Your task to perform on an android device: change text size in settings app Image 0: 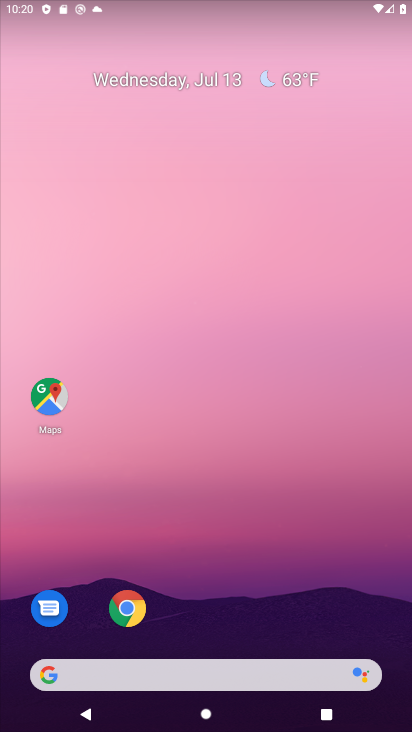
Step 0: drag from (224, 673) to (340, 63)
Your task to perform on an android device: change text size in settings app Image 1: 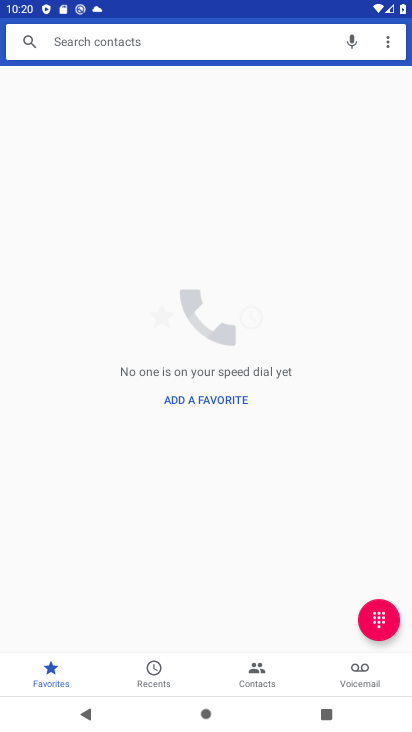
Step 1: press home button
Your task to perform on an android device: change text size in settings app Image 2: 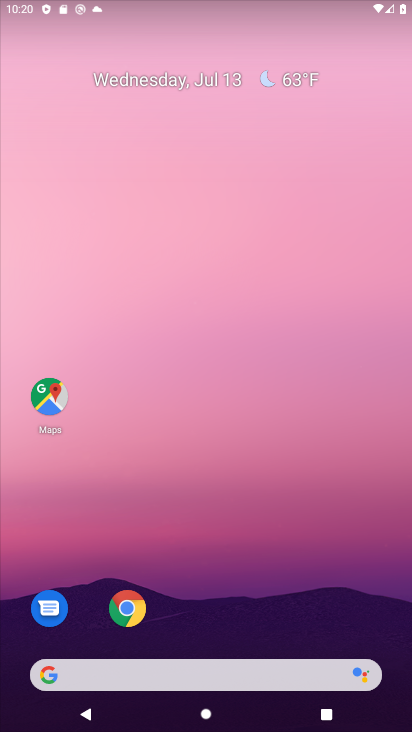
Step 2: drag from (201, 644) to (305, 106)
Your task to perform on an android device: change text size in settings app Image 3: 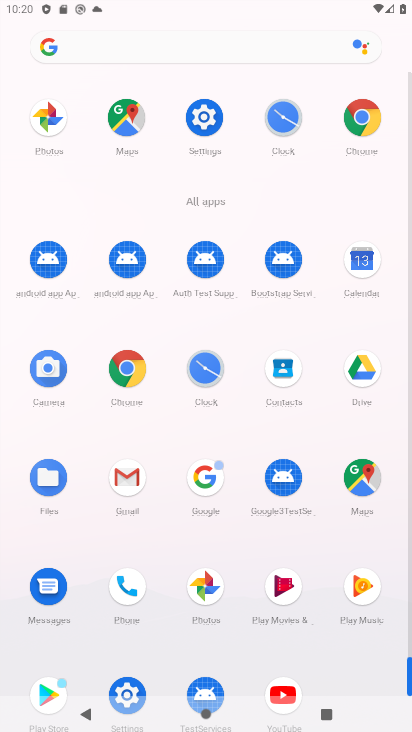
Step 3: click (125, 682)
Your task to perform on an android device: change text size in settings app Image 4: 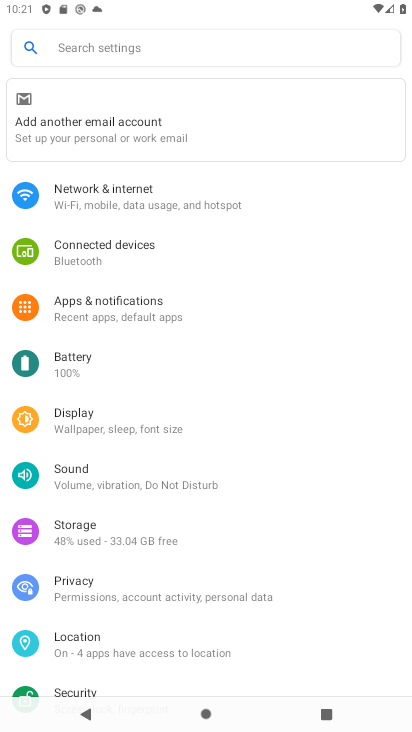
Step 4: click (117, 412)
Your task to perform on an android device: change text size in settings app Image 5: 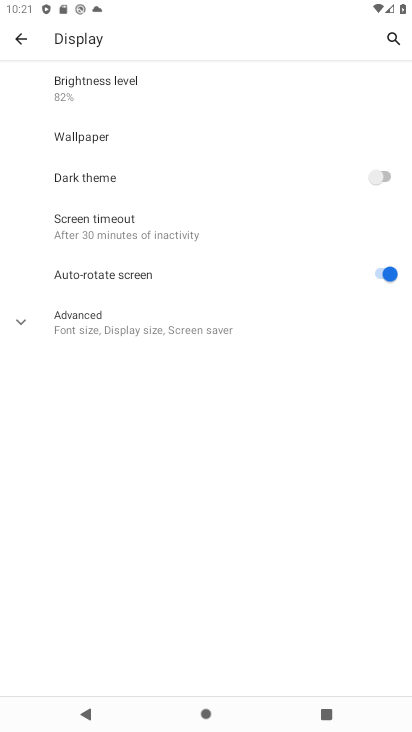
Step 5: click (117, 322)
Your task to perform on an android device: change text size in settings app Image 6: 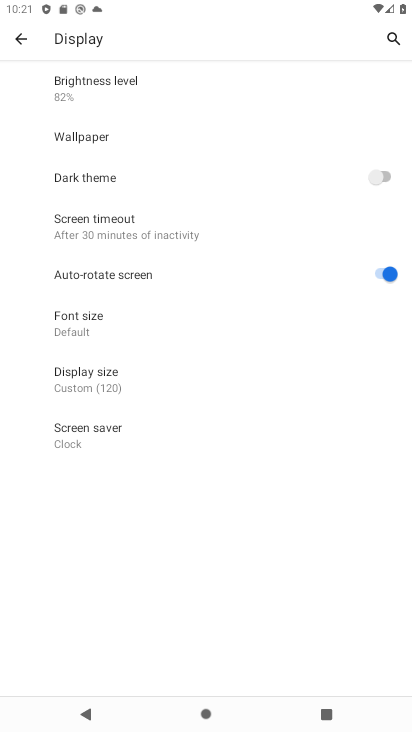
Step 6: click (121, 326)
Your task to perform on an android device: change text size in settings app Image 7: 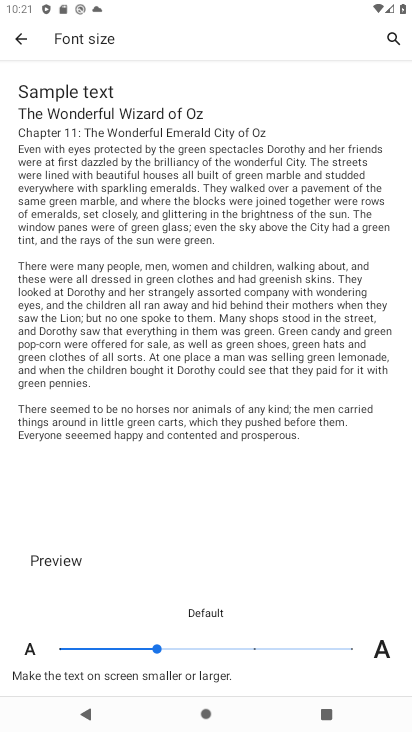
Step 7: click (254, 647)
Your task to perform on an android device: change text size in settings app Image 8: 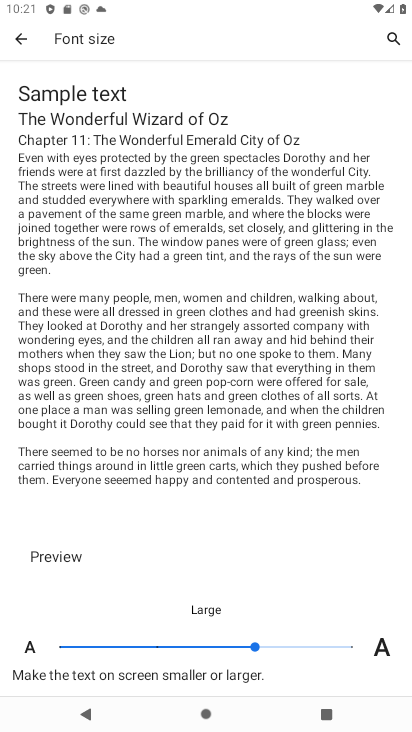
Step 8: task complete